Your task to perform on an android device: Show me recent news Image 0: 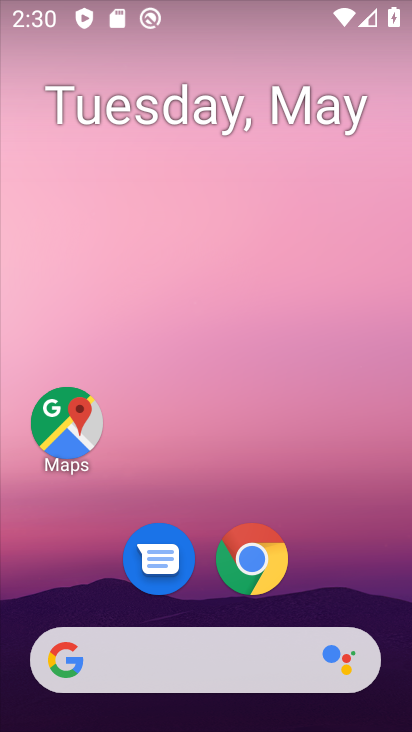
Step 0: click (200, 602)
Your task to perform on an android device: Show me recent news Image 1: 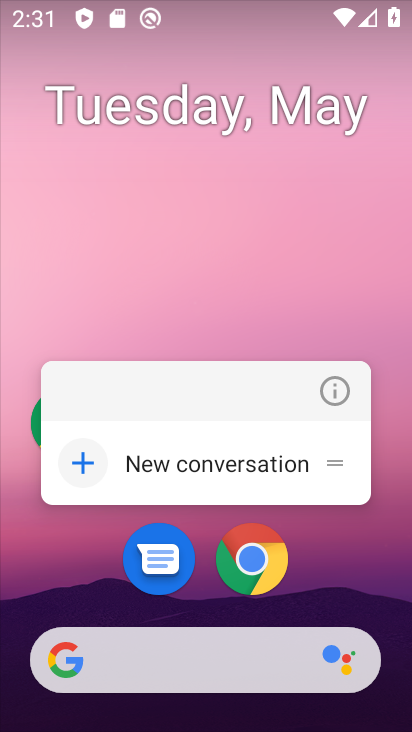
Step 1: drag from (224, 605) to (195, 181)
Your task to perform on an android device: Show me recent news Image 2: 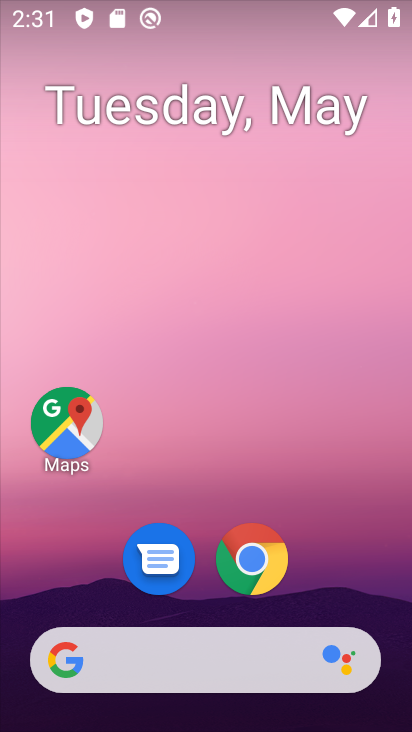
Step 2: drag from (207, 577) to (199, 235)
Your task to perform on an android device: Show me recent news Image 3: 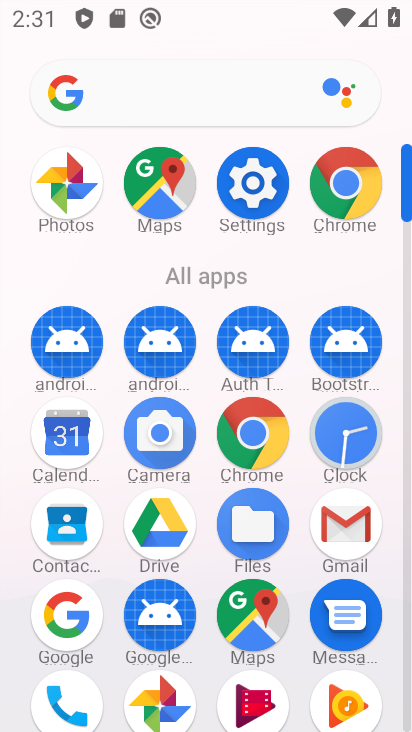
Step 3: click (63, 611)
Your task to perform on an android device: Show me recent news Image 4: 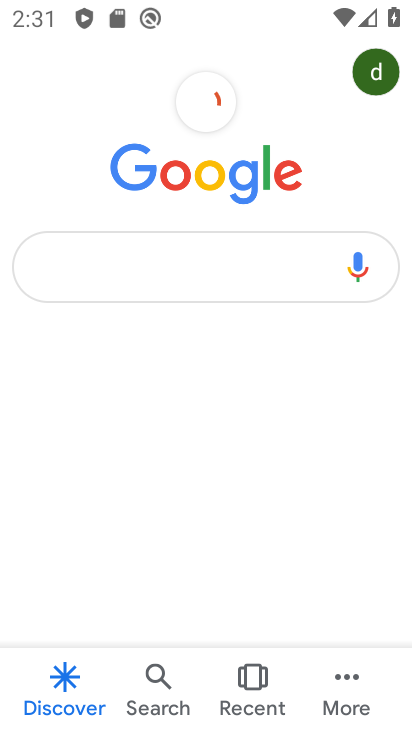
Step 4: click (191, 249)
Your task to perform on an android device: Show me recent news Image 5: 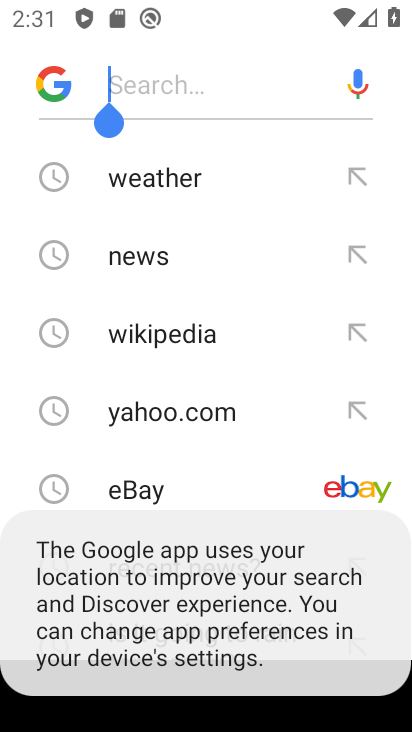
Step 5: click (154, 261)
Your task to perform on an android device: Show me recent news Image 6: 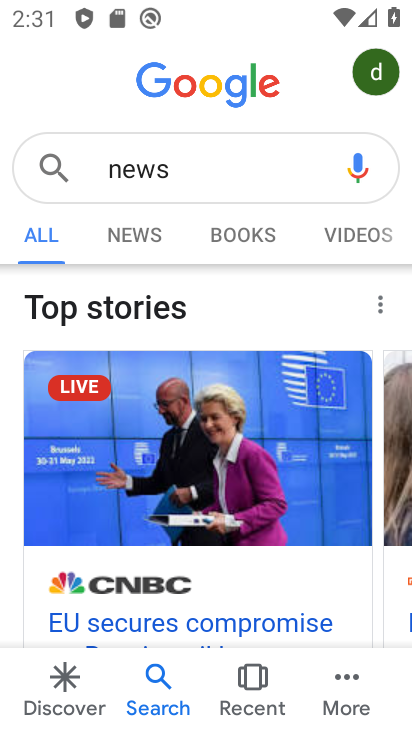
Step 6: click (157, 233)
Your task to perform on an android device: Show me recent news Image 7: 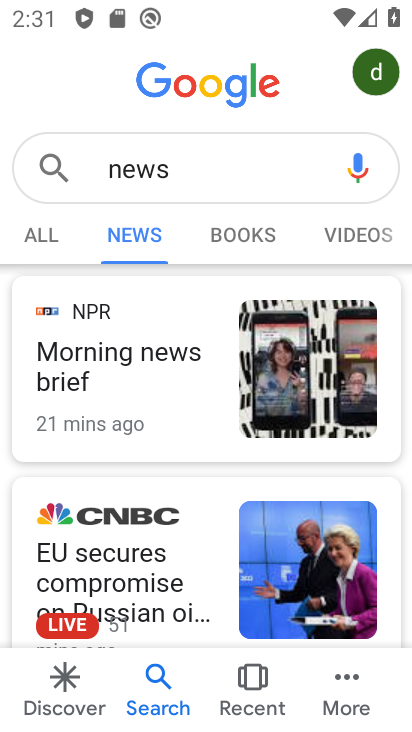
Step 7: task complete